Your task to perform on an android device: Open notification settings Image 0: 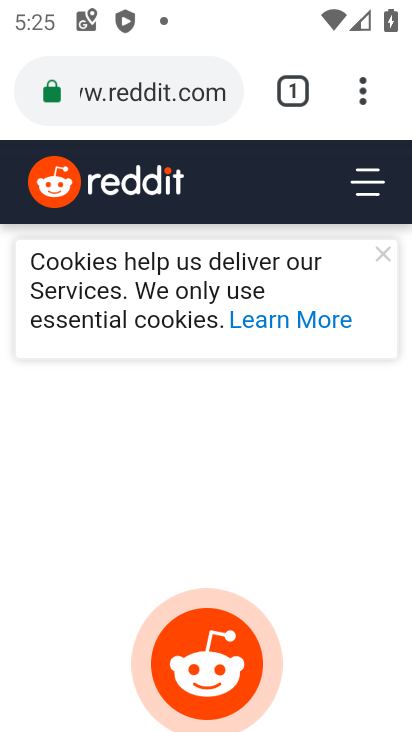
Step 0: press home button
Your task to perform on an android device: Open notification settings Image 1: 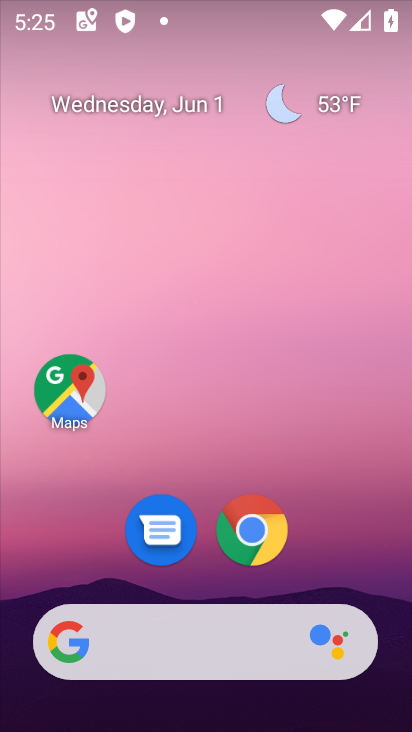
Step 1: drag from (191, 581) to (191, 107)
Your task to perform on an android device: Open notification settings Image 2: 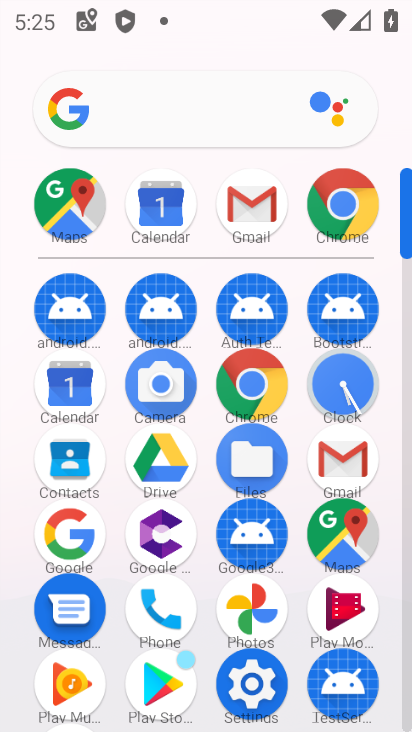
Step 2: click (241, 688)
Your task to perform on an android device: Open notification settings Image 3: 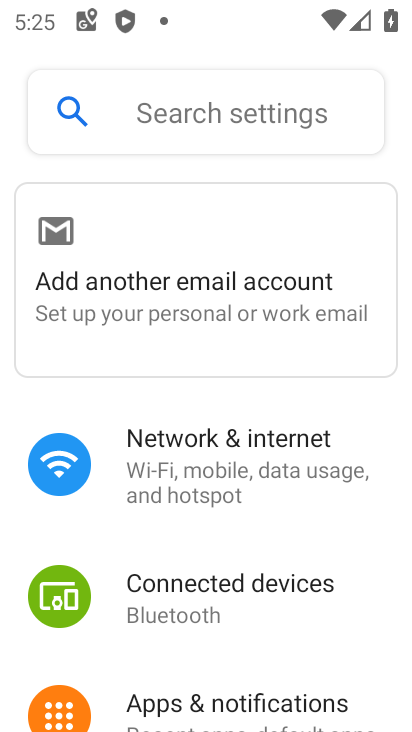
Step 3: click (202, 706)
Your task to perform on an android device: Open notification settings Image 4: 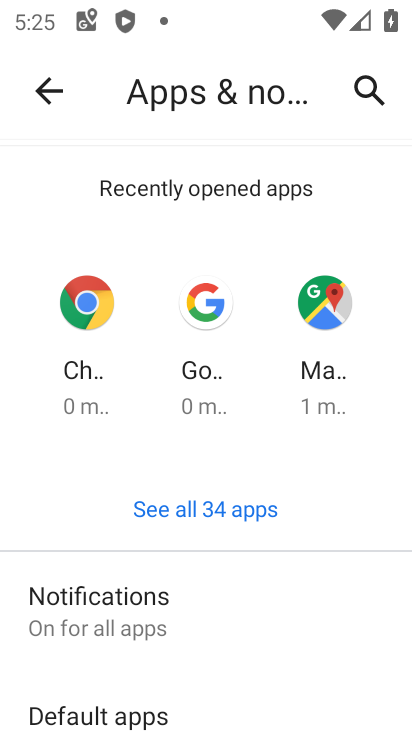
Step 4: click (99, 603)
Your task to perform on an android device: Open notification settings Image 5: 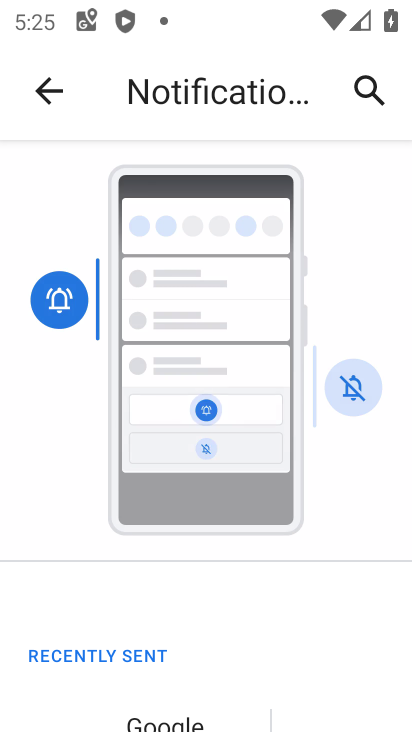
Step 5: task complete